Your task to perform on an android device: Go to display settings Image 0: 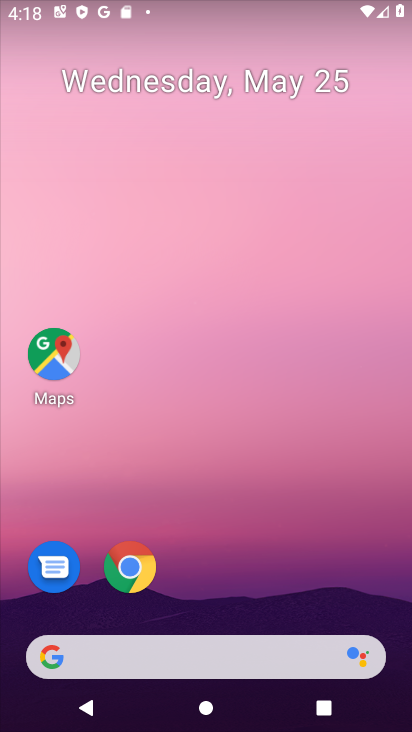
Step 0: drag from (252, 499) to (190, 64)
Your task to perform on an android device: Go to display settings Image 1: 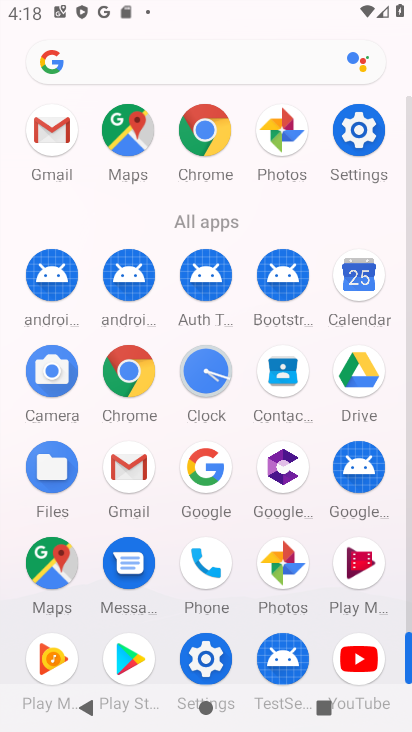
Step 1: drag from (15, 565) to (35, 258)
Your task to perform on an android device: Go to display settings Image 2: 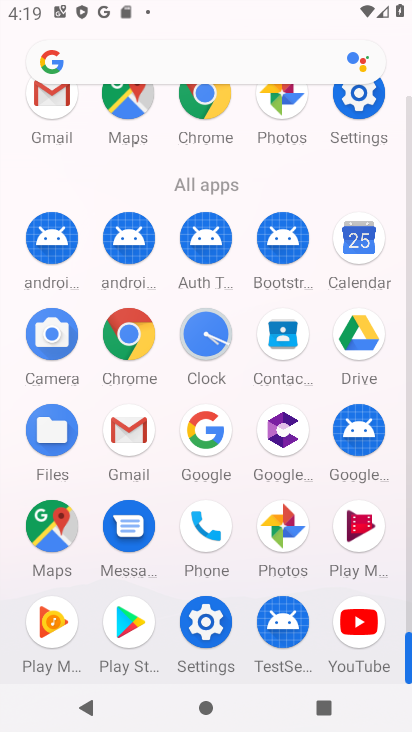
Step 2: drag from (12, 516) to (9, 262)
Your task to perform on an android device: Go to display settings Image 3: 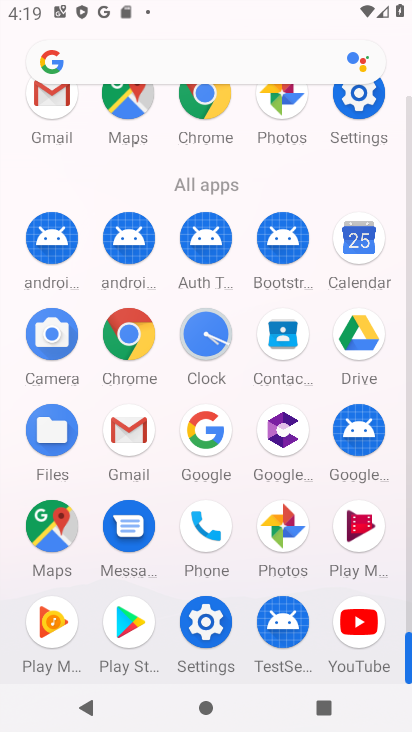
Step 3: click (202, 617)
Your task to perform on an android device: Go to display settings Image 4: 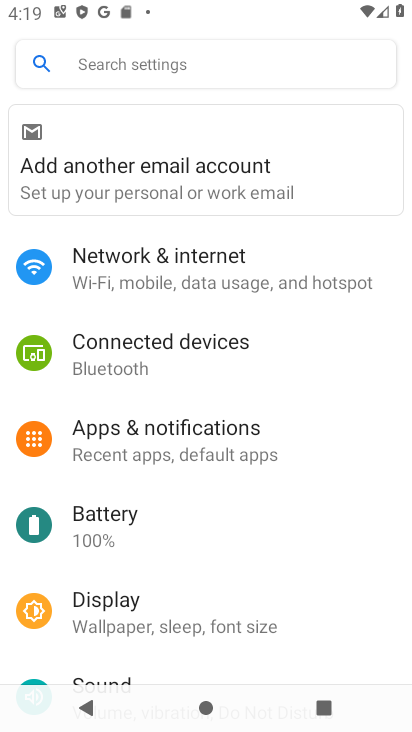
Step 4: drag from (263, 565) to (259, 253)
Your task to perform on an android device: Go to display settings Image 5: 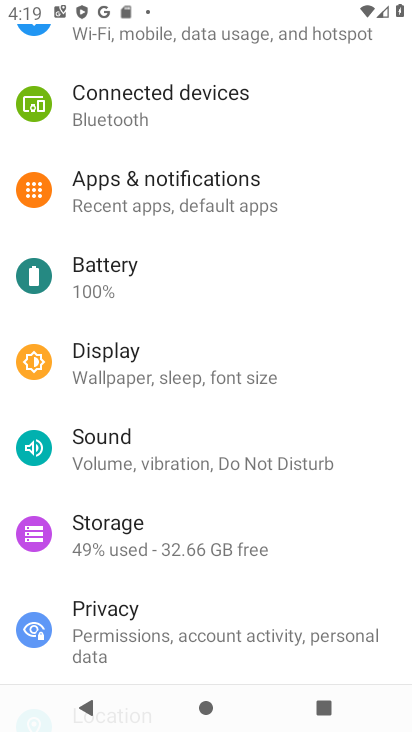
Step 5: click (126, 357)
Your task to perform on an android device: Go to display settings Image 6: 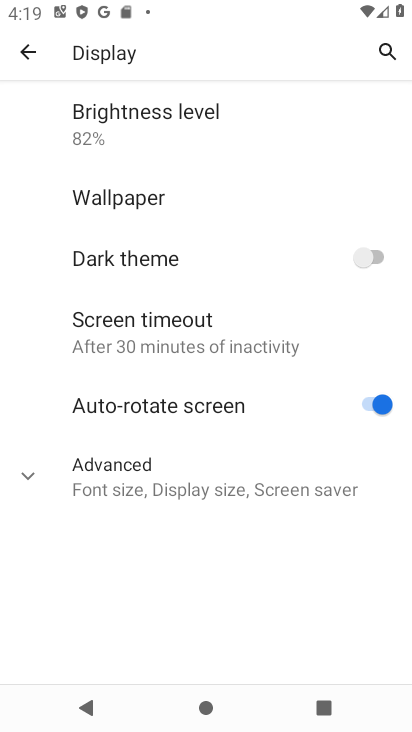
Step 6: click (33, 469)
Your task to perform on an android device: Go to display settings Image 7: 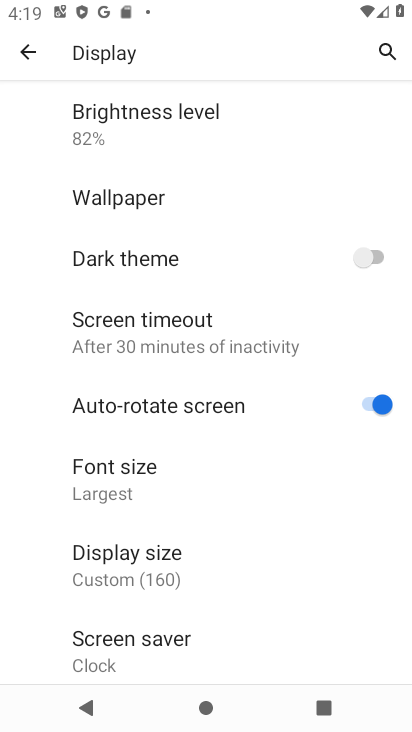
Step 7: task complete